Your task to perform on an android device: Open calendar and show me the fourth week of next month Image 0: 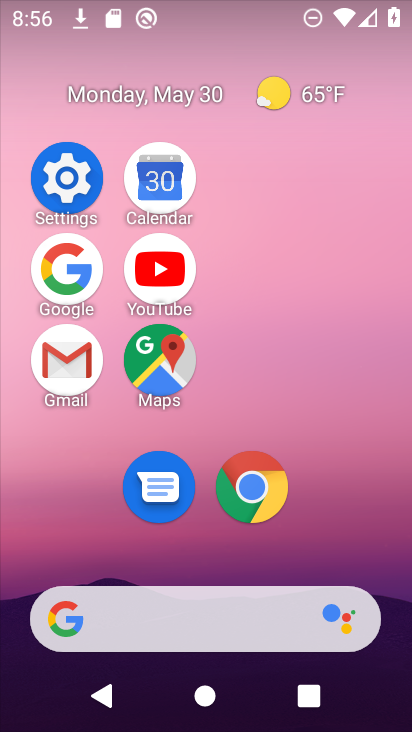
Step 0: click (157, 167)
Your task to perform on an android device: Open calendar and show me the fourth week of next month Image 1: 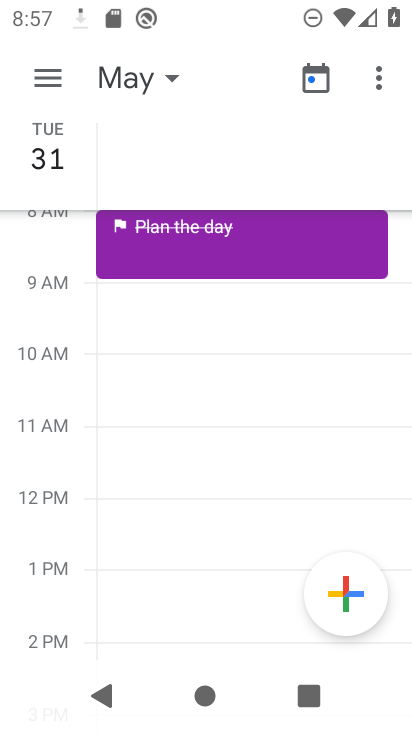
Step 1: click (143, 84)
Your task to perform on an android device: Open calendar and show me the fourth week of next month Image 2: 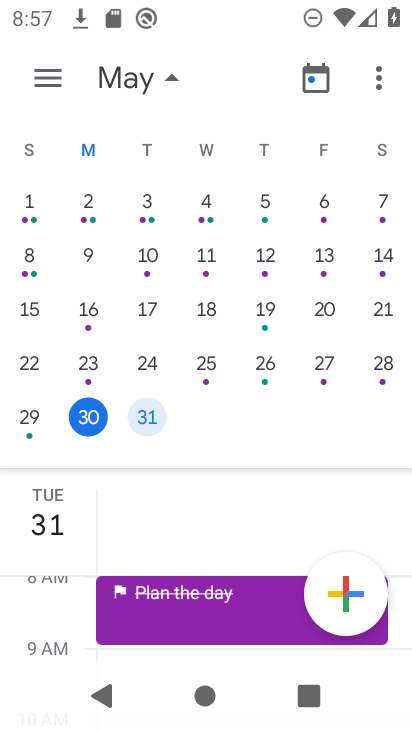
Step 2: drag from (361, 301) to (69, 64)
Your task to perform on an android device: Open calendar and show me the fourth week of next month Image 3: 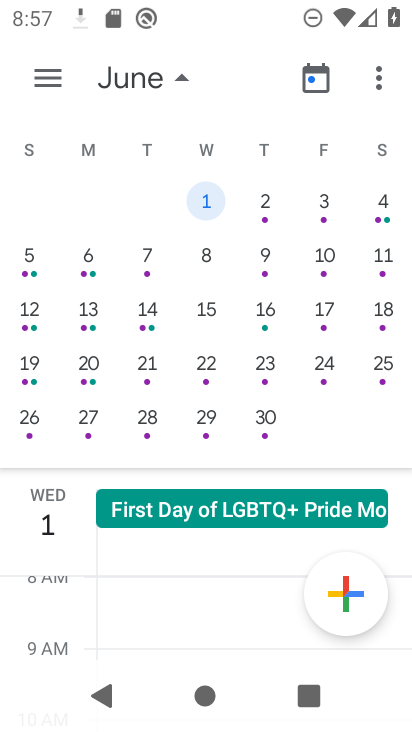
Step 3: click (73, 82)
Your task to perform on an android device: Open calendar and show me the fourth week of next month Image 4: 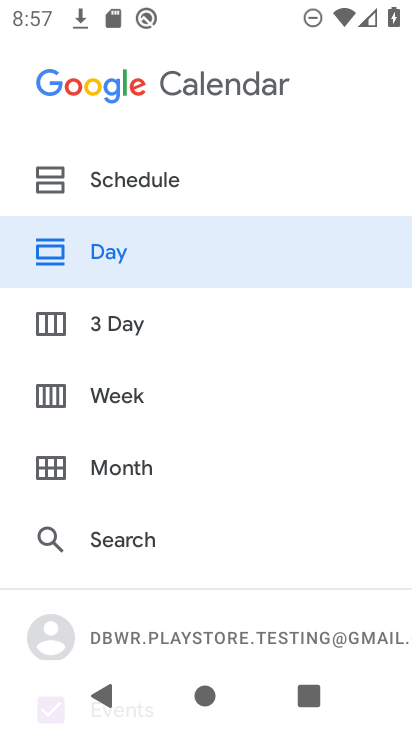
Step 4: click (115, 399)
Your task to perform on an android device: Open calendar and show me the fourth week of next month Image 5: 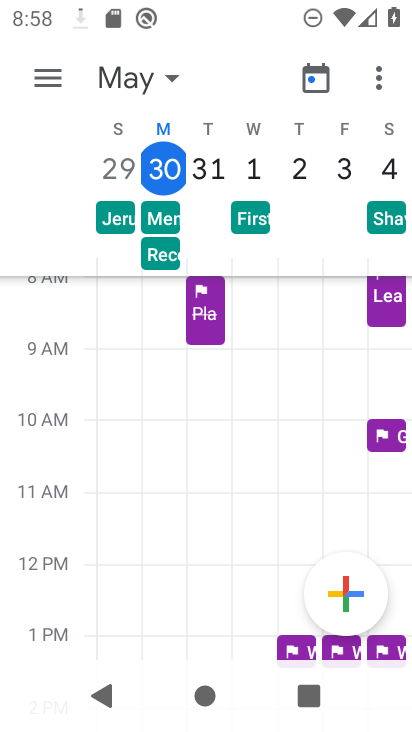
Step 5: task complete